Your task to perform on an android device: Go to Amazon Image 0: 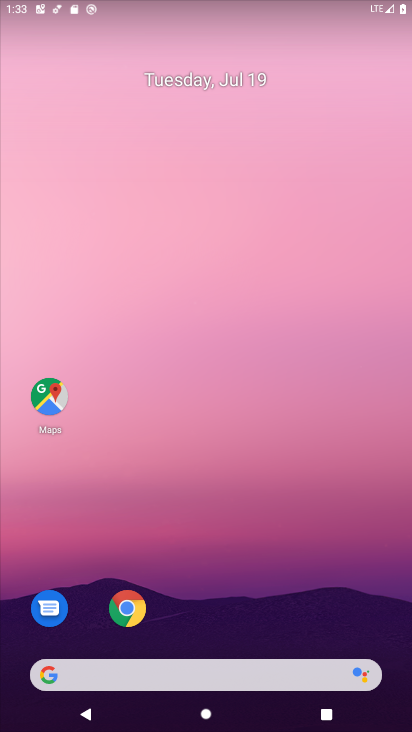
Step 0: drag from (220, 528) to (281, 114)
Your task to perform on an android device: Go to Amazon Image 1: 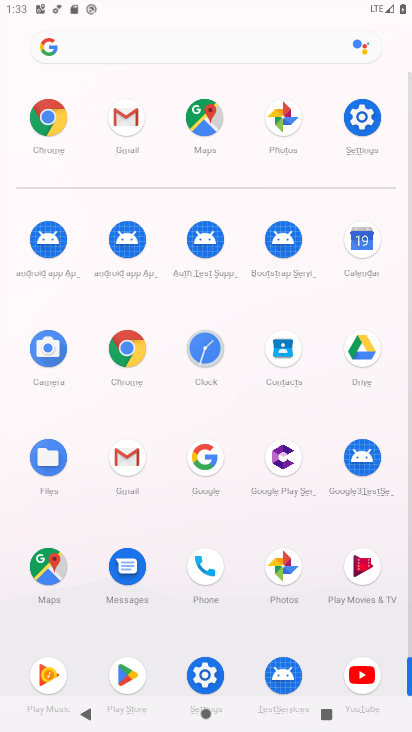
Step 1: click (122, 341)
Your task to perform on an android device: Go to Amazon Image 2: 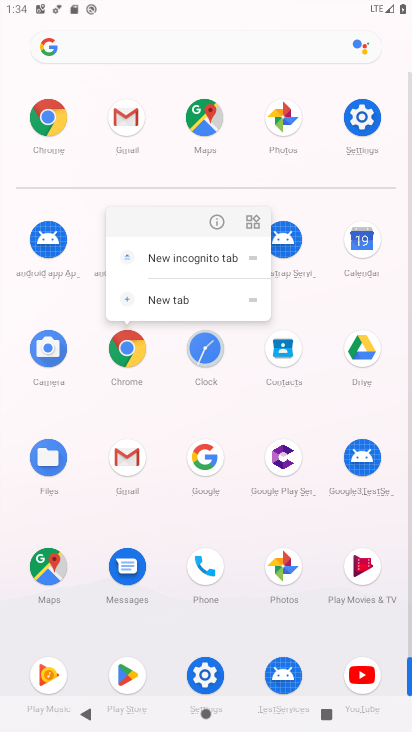
Step 2: click (167, 406)
Your task to perform on an android device: Go to Amazon Image 3: 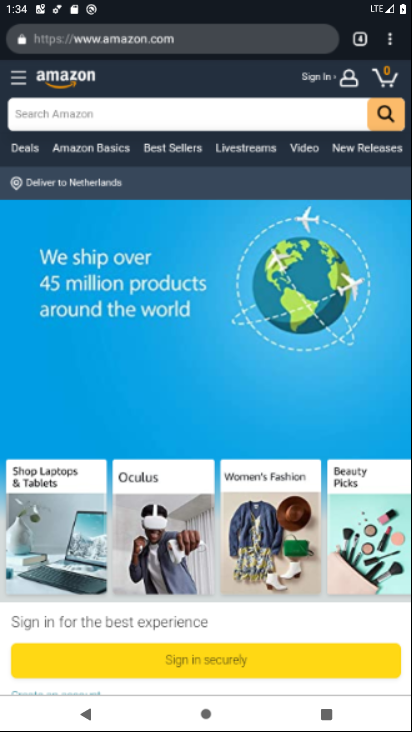
Step 3: click (133, 363)
Your task to perform on an android device: Go to Amazon Image 4: 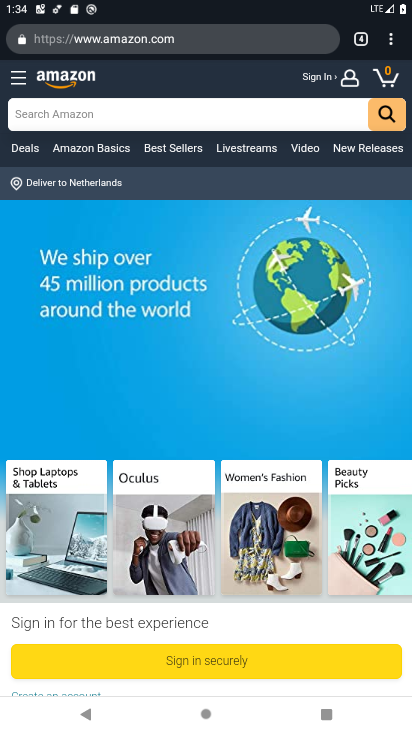
Step 4: task complete